Your task to perform on an android device: Go to calendar. Show me events next week Image 0: 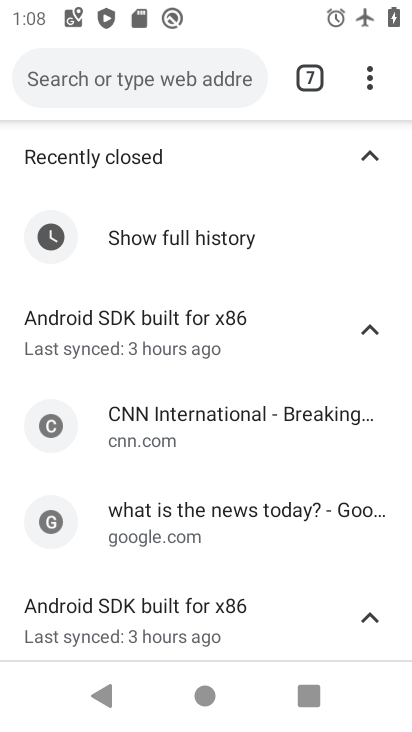
Step 0: press home button
Your task to perform on an android device: Go to calendar. Show me events next week Image 1: 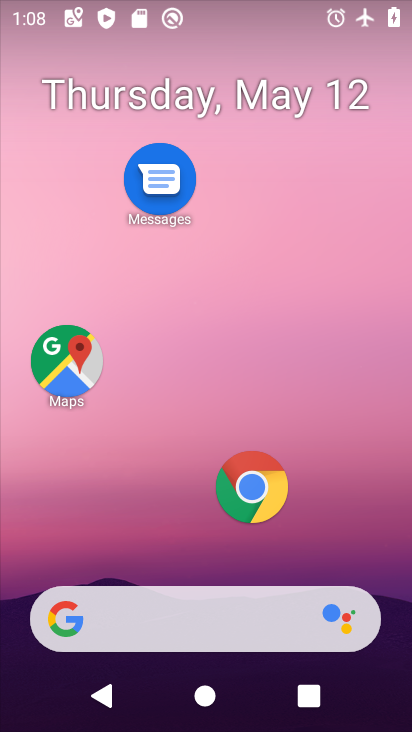
Step 1: drag from (210, 546) to (221, 153)
Your task to perform on an android device: Go to calendar. Show me events next week Image 2: 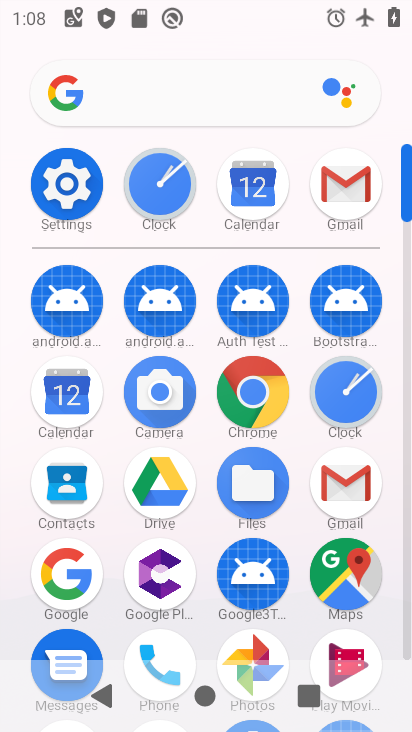
Step 2: click (76, 366)
Your task to perform on an android device: Go to calendar. Show me events next week Image 3: 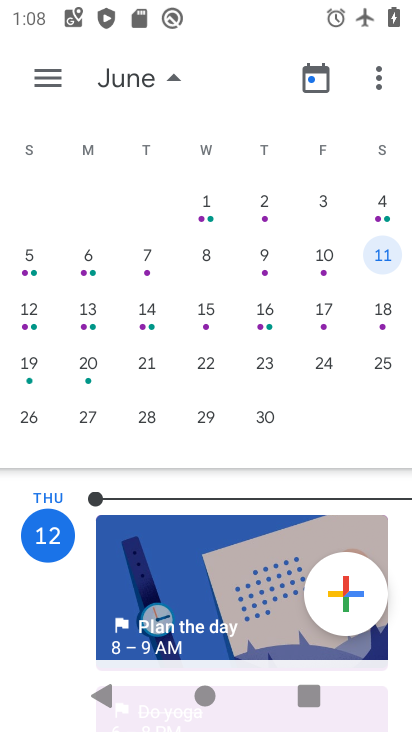
Step 3: click (83, 320)
Your task to perform on an android device: Go to calendar. Show me events next week Image 4: 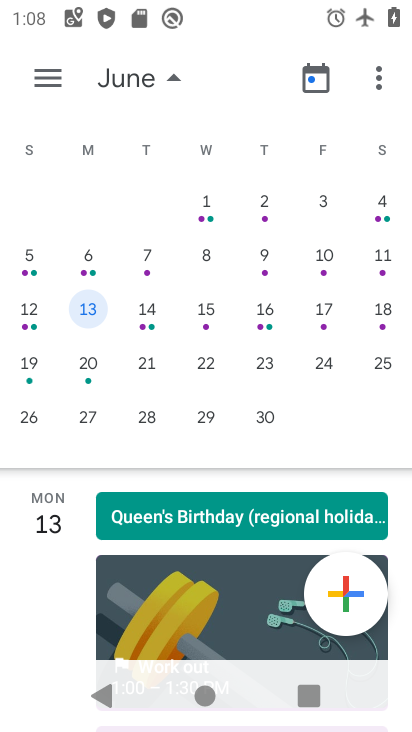
Step 4: click (322, 316)
Your task to perform on an android device: Go to calendar. Show me events next week Image 5: 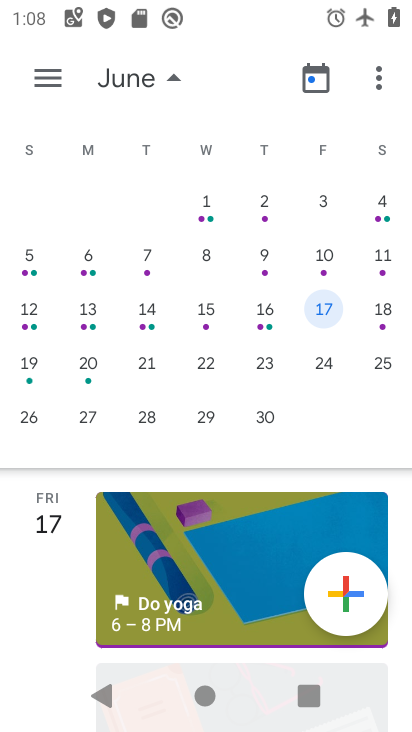
Step 5: click (261, 319)
Your task to perform on an android device: Go to calendar. Show me events next week Image 6: 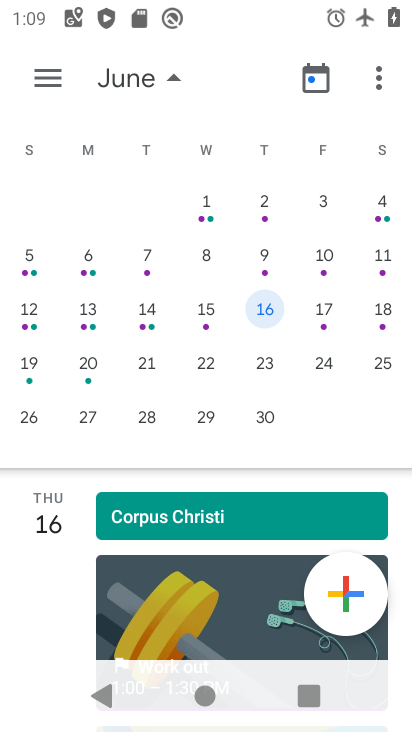
Step 6: task complete